Your task to perform on an android device: clear history in the chrome app Image 0: 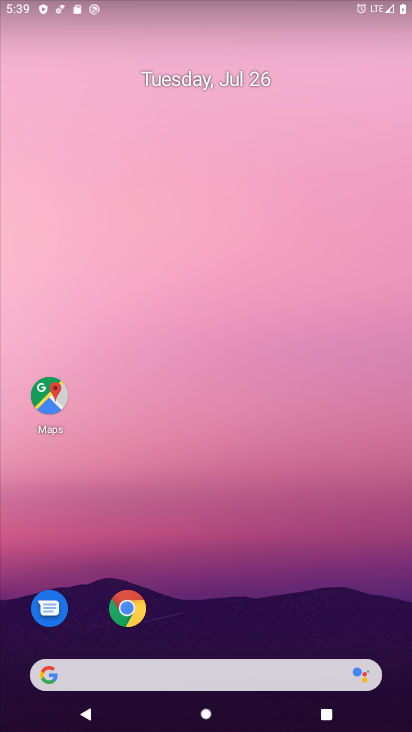
Step 0: drag from (373, 634) to (209, 9)
Your task to perform on an android device: clear history in the chrome app Image 1: 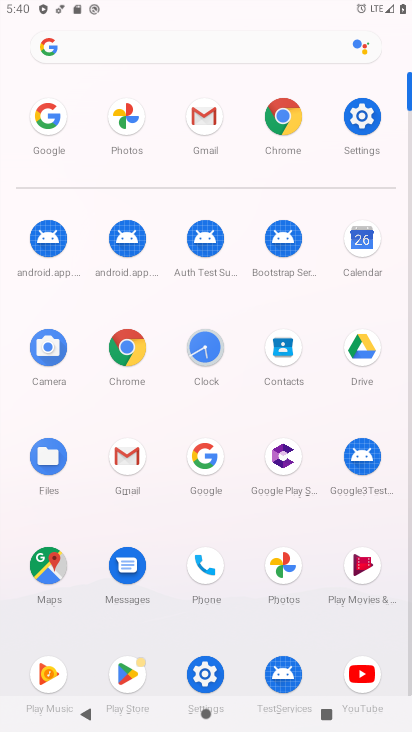
Step 1: click (141, 342)
Your task to perform on an android device: clear history in the chrome app Image 2: 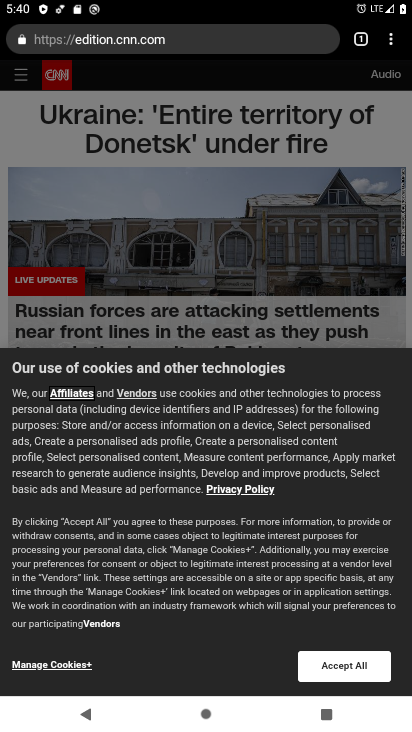
Step 2: click (392, 35)
Your task to perform on an android device: clear history in the chrome app Image 3: 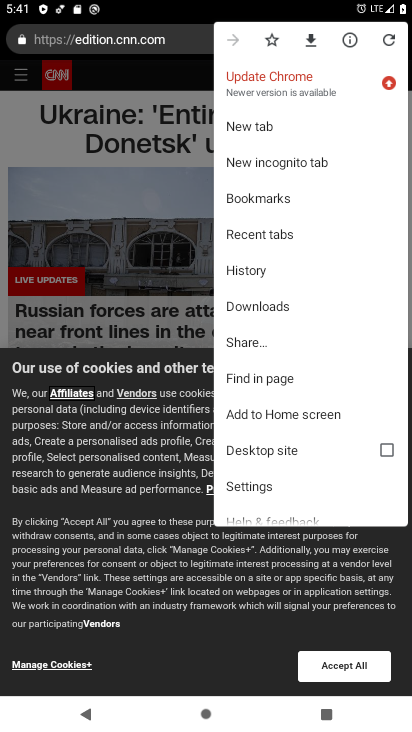
Step 3: click (268, 269)
Your task to perform on an android device: clear history in the chrome app Image 4: 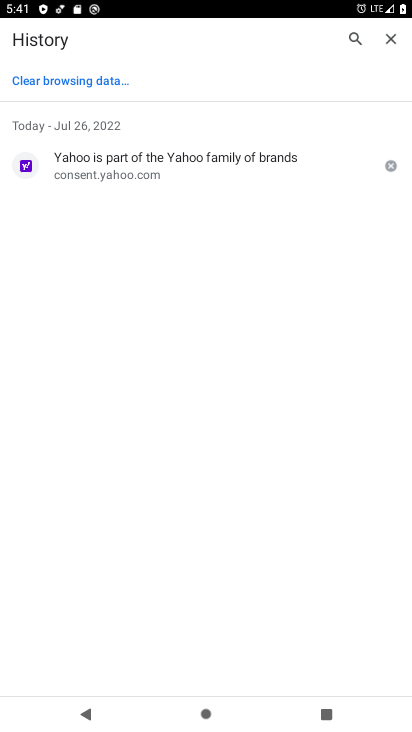
Step 4: click (72, 78)
Your task to perform on an android device: clear history in the chrome app Image 5: 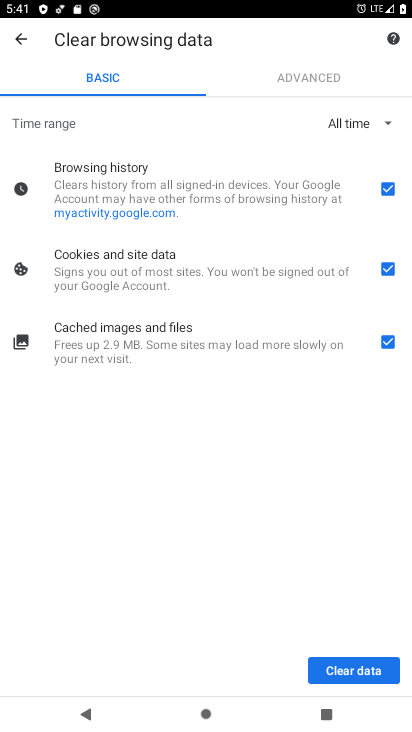
Step 5: click (367, 667)
Your task to perform on an android device: clear history in the chrome app Image 6: 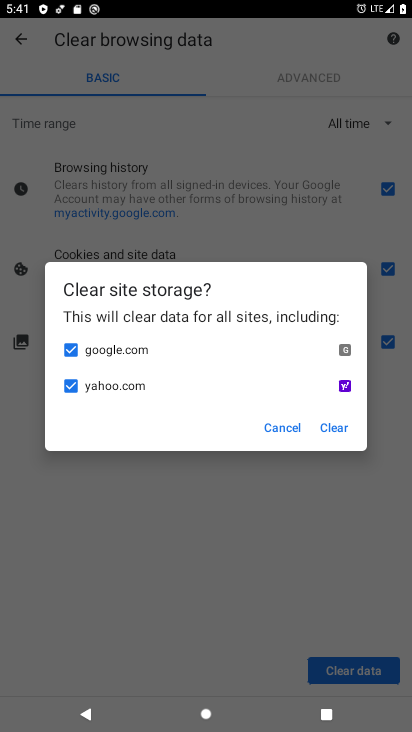
Step 6: click (325, 429)
Your task to perform on an android device: clear history in the chrome app Image 7: 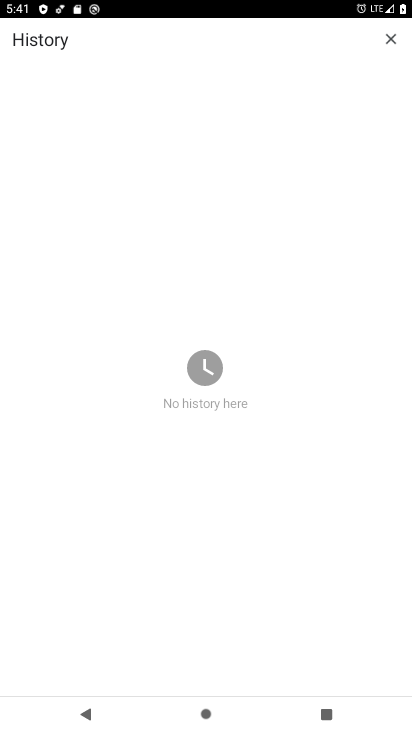
Step 7: task complete